Your task to perform on an android device: toggle sleep mode Image 0: 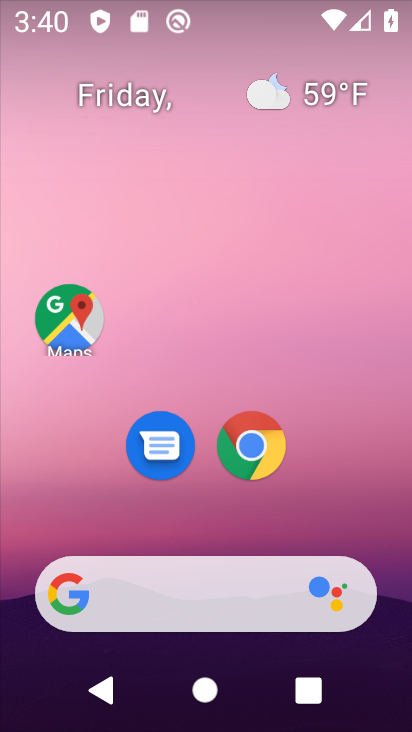
Step 0: drag from (395, 608) to (371, 73)
Your task to perform on an android device: toggle sleep mode Image 1: 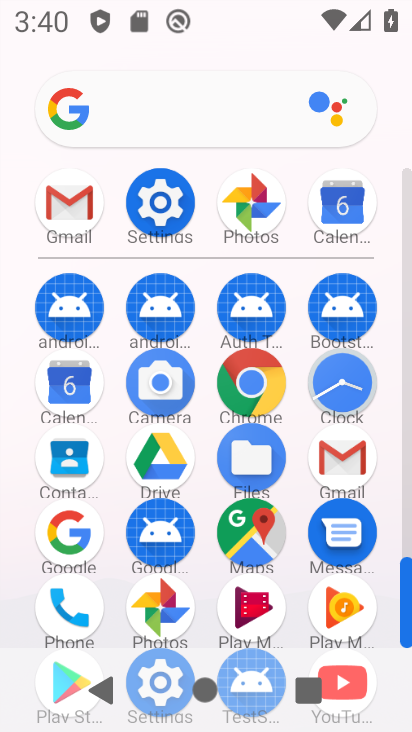
Step 1: drag from (404, 543) to (404, 473)
Your task to perform on an android device: toggle sleep mode Image 2: 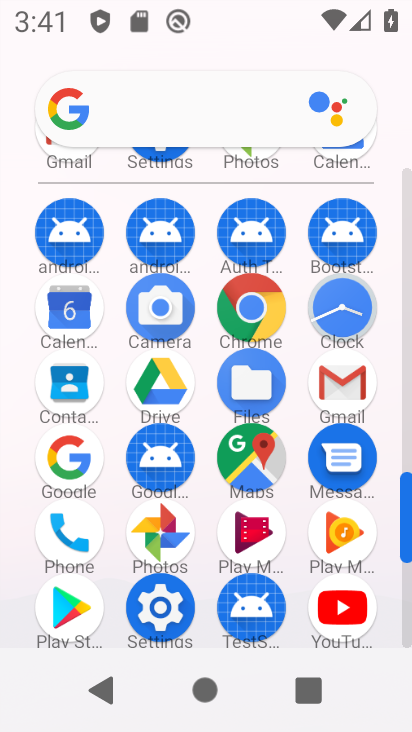
Step 2: click (154, 605)
Your task to perform on an android device: toggle sleep mode Image 3: 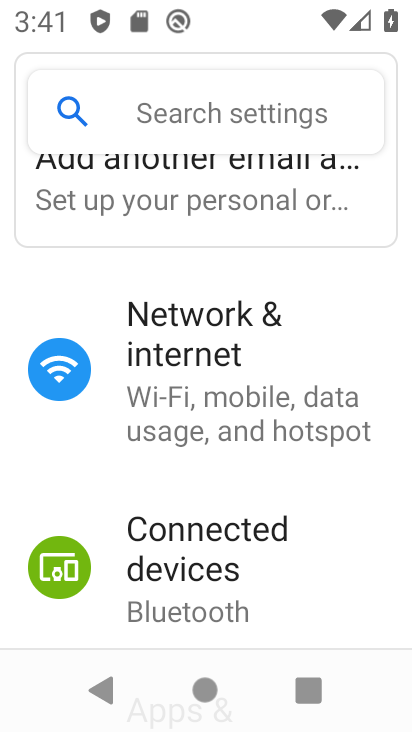
Step 3: drag from (274, 572) to (251, 154)
Your task to perform on an android device: toggle sleep mode Image 4: 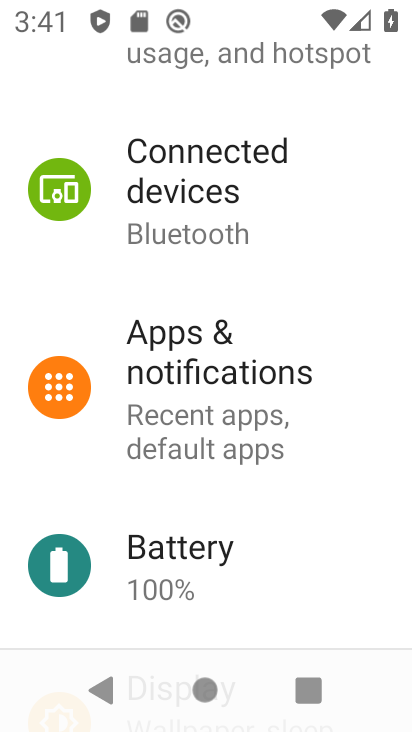
Step 4: drag from (262, 561) to (246, 205)
Your task to perform on an android device: toggle sleep mode Image 5: 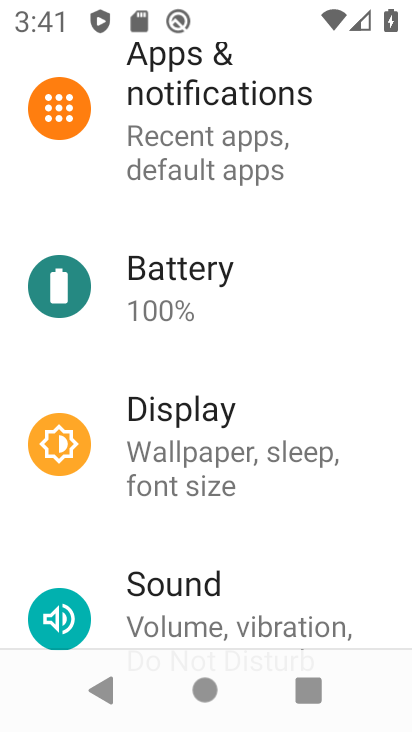
Step 5: drag from (219, 596) to (248, 260)
Your task to perform on an android device: toggle sleep mode Image 6: 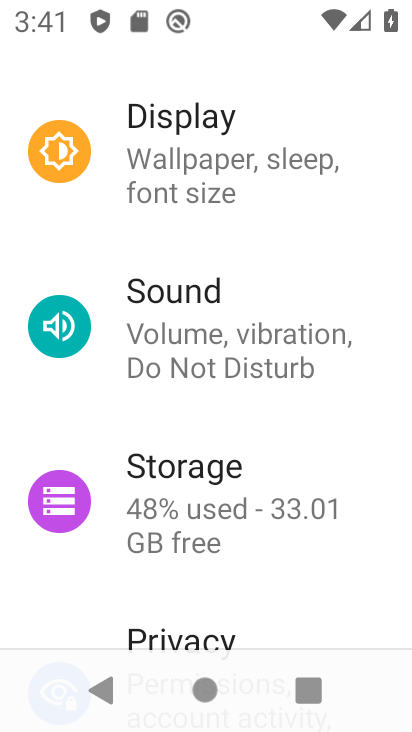
Step 6: click (178, 172)
Your task to perform on an android device: toggle sleep mode Image 7: 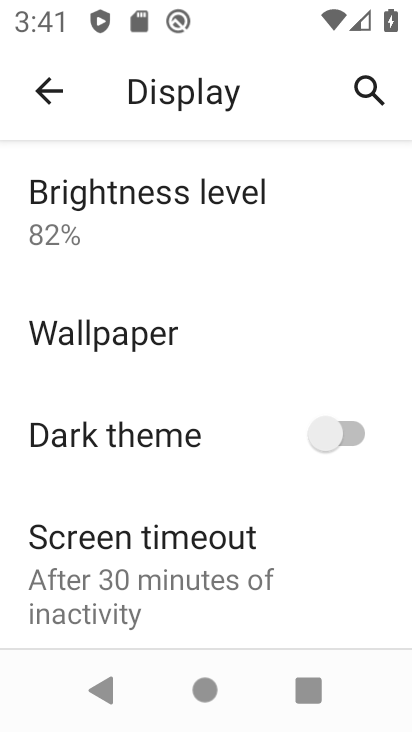
Step 7: drag from (212, 466) to (188, 74)
Your task to perform on an android device: toggle sleep mode Image 8: 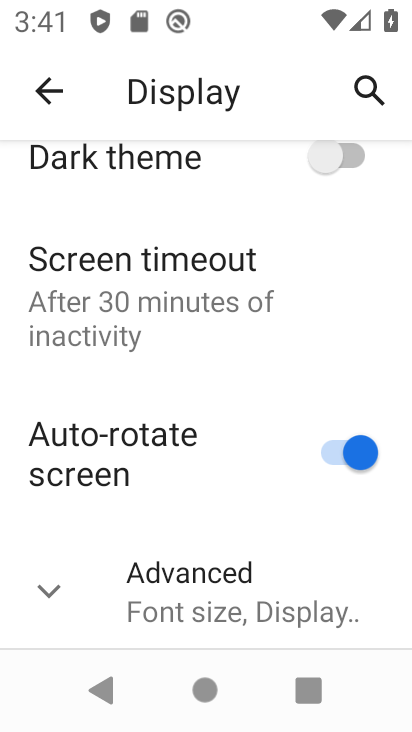
Step 8: click (53, 584)
Your task to perform on an android device: toggle sleep mode Image 9: 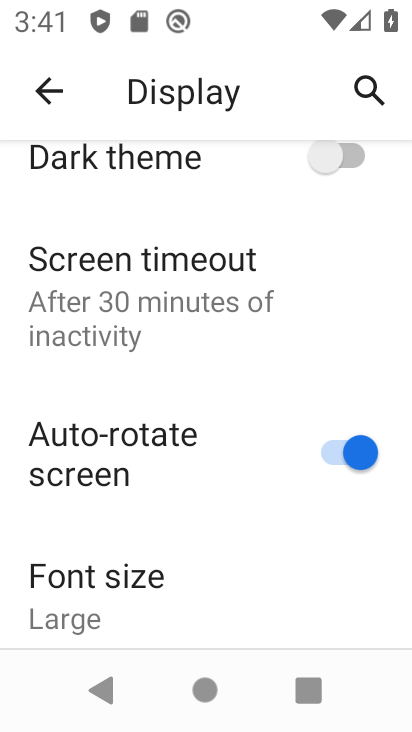
Step 9: task complete